Your task to perform on an android device: check out phone information Image 0: 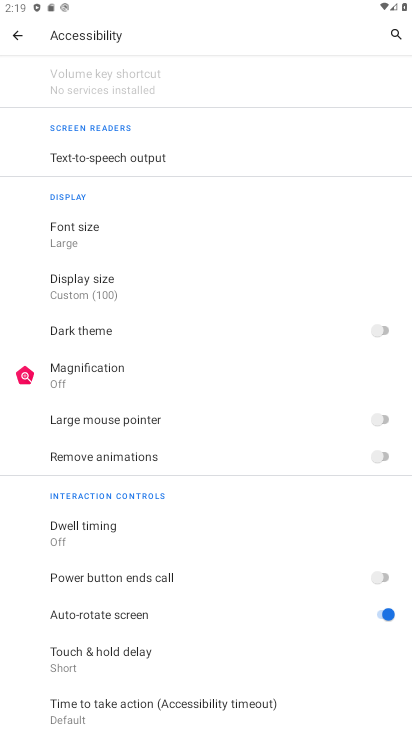
Step 0: task complete